Your task to perform on an android device: turn off javascript in the chrome app Image 0: 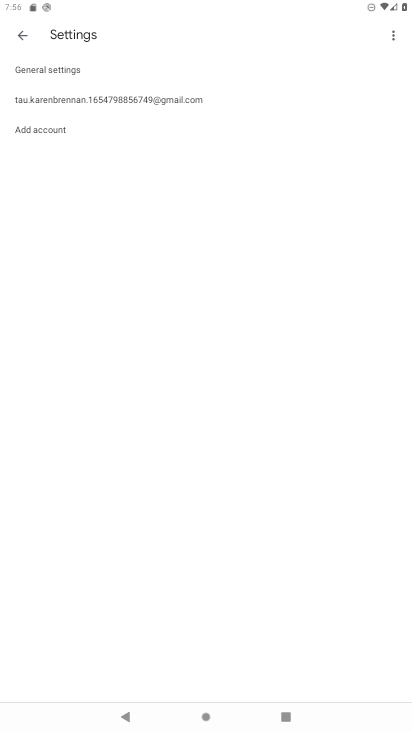
Step 0: press home button
Your task to perform on an android device: turn off javascript in the chrome app Image 1: 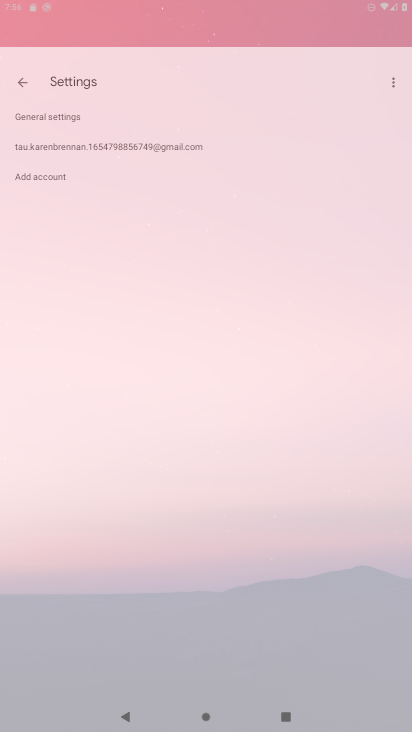
Step 1: drag from (368, 693) to (42, 170)
Your task to perform on an android device: turn off javascript in the chrome app Image 2: 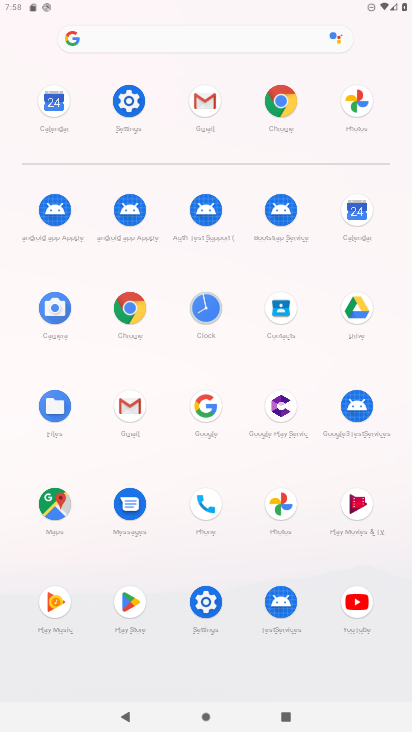
Step 2: click (131, 313)
Your task to perform on an android device: turn off javascript in the chrome app Image 3: 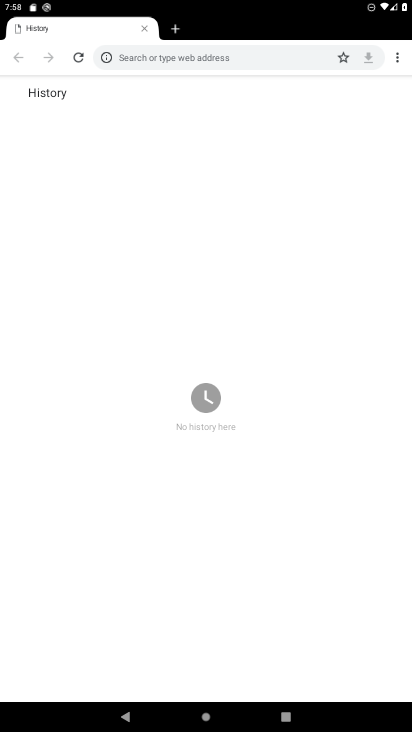
Step 3: click (395, 59)
Your task to perform on an android device: turn off javascript in the chrome app Image 4: 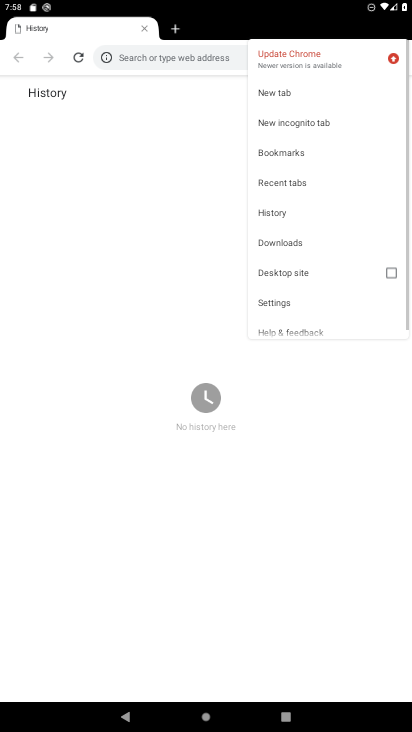
Step 4: click (264, 293)
Your task to perform on an android device: turn off javascript in the chrome app Image 5: 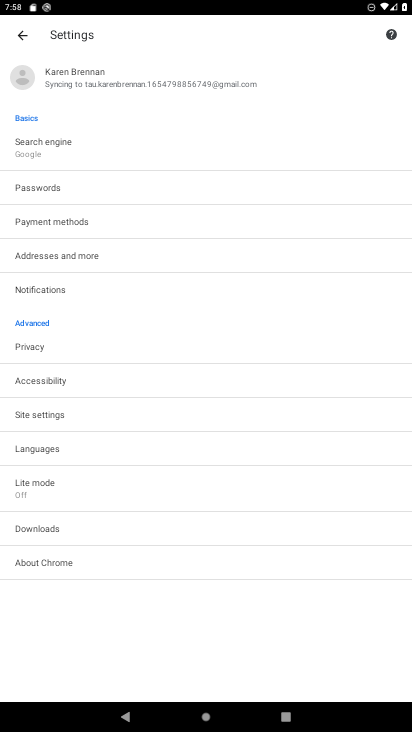
Step 5: click (31, 417)
Your task to perform on an android device: turn off javascript in the chrome app Image 6: 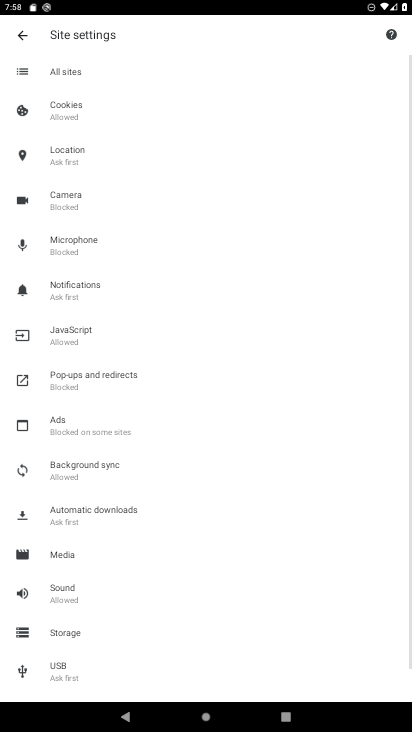
Step 6: click (111, 331)
Your task to perform on an android device: turn off javascript in the chrome app Image 7: 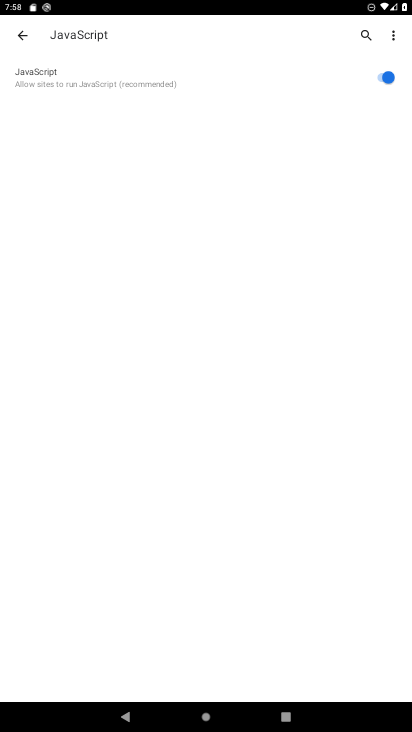
Step 7: click (366, 78)
Your task to perform on an android device: turn off javascript in the chrome app Image 8: 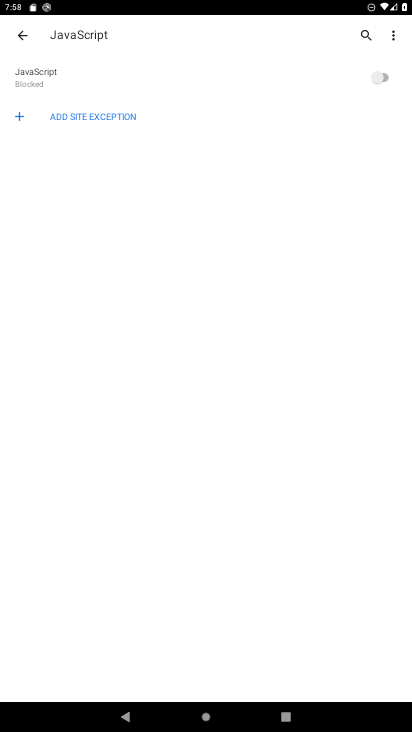
Step 8: task complete